Your task to perform on an android device: Open the phone app and click the voicemail tab. Image 0: 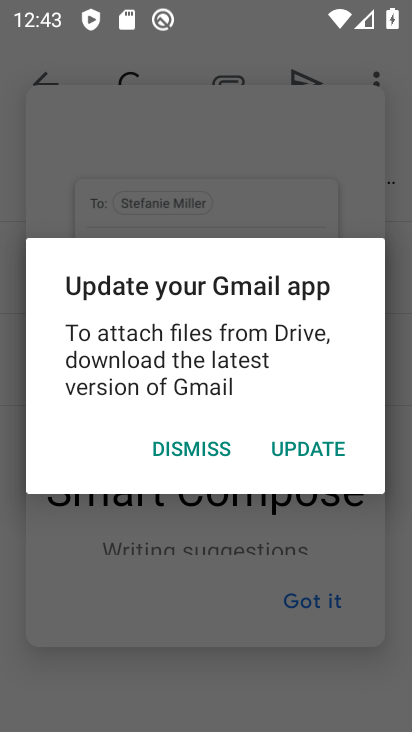
Step 0: press home button
Your task to perform on an android device: Open the phone app and click the voicemail tab. Image 1: 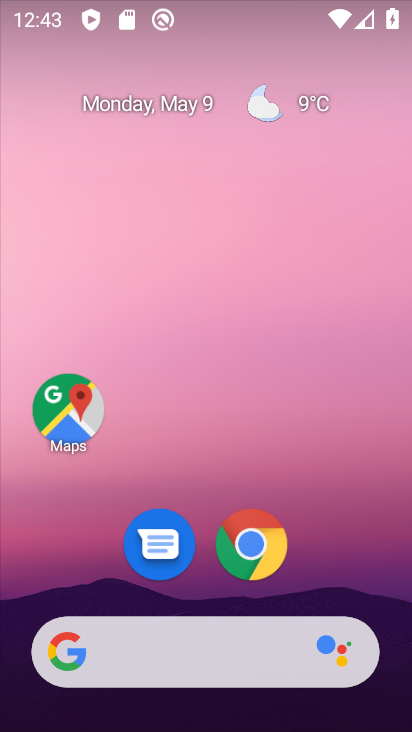
Step 1: drag from (354, 599) to (271, 23)
Your task to perform on an android device: Open the phone app and click the voicemail tab. Image 2: 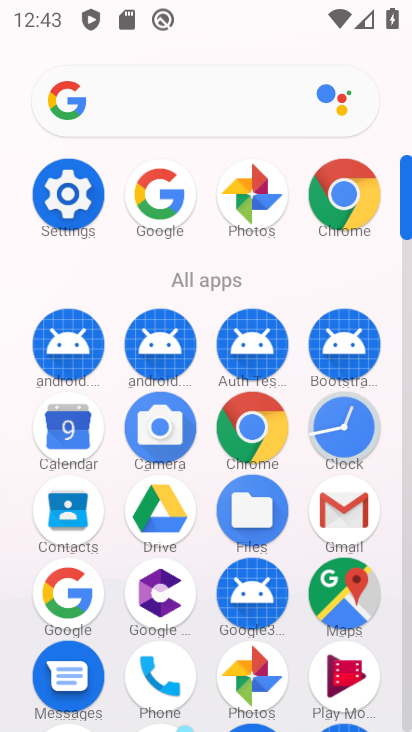
Step 2: drag from (197, 298) to (189, 38)
Your task to perform on an android device: Open the phone app and click the voicemail tab. Image 3: 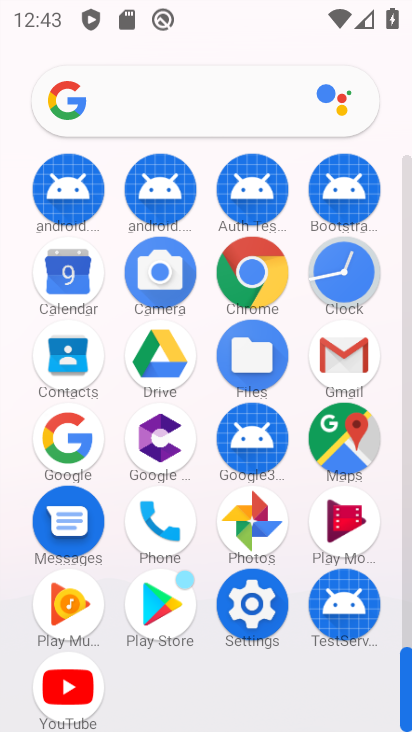
Step 3: click (164, 522)
Your task to perform on an android device: Open the phone app and click the voicemail tab. Image 4: 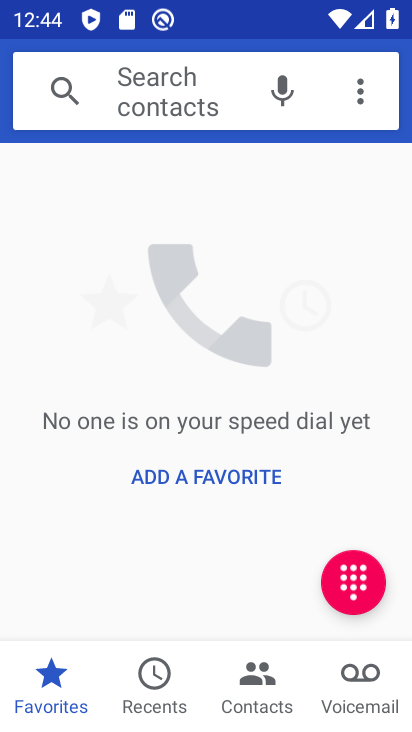
Step 4: click (377, 697)
Your task to perform on an android device: Open the phone app and click the voicemail tab. Image 5: 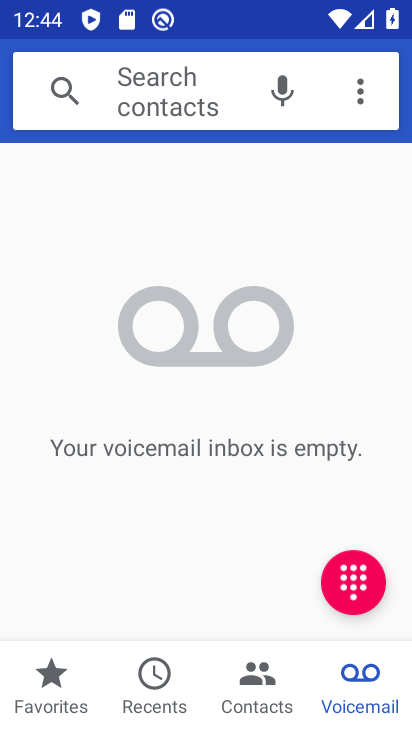
Step 5: task complete